Your task to perform on an android device: see sites visited before in the chrome app Image 0: 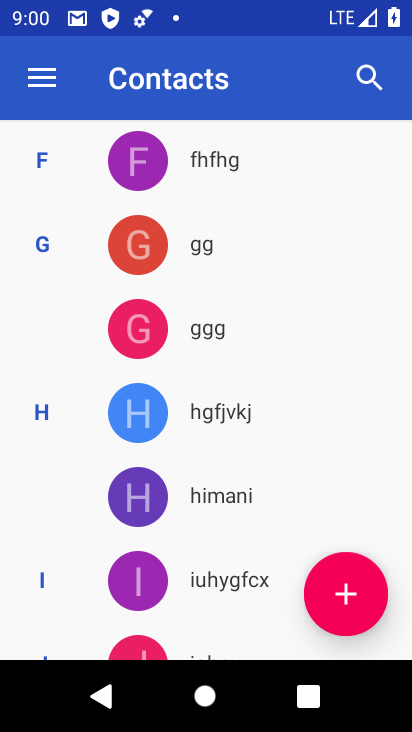
Step 0: press back button
Your task to perform on an android device: see sites visited before in the chrome app Image 1: 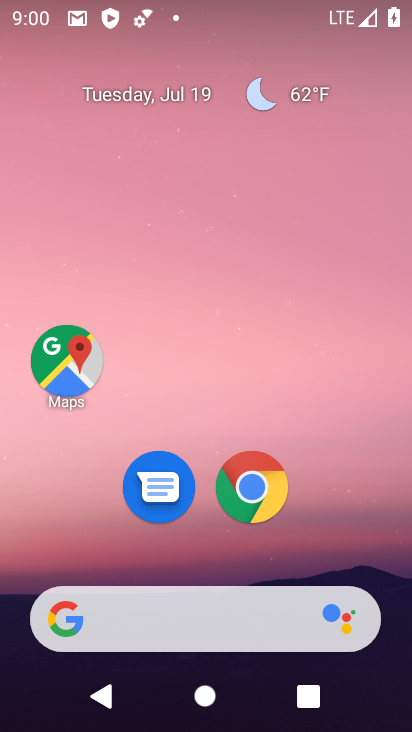
Step 1: click (243, 495)
Your task to perform on an android device: see sites visited before in the chrome app Image 2: 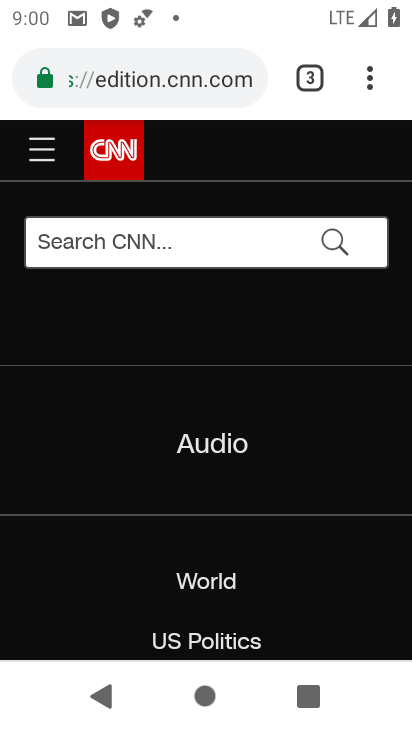
Step 2: task complete